Your task to perform on an android device: Go to Google Image 0: 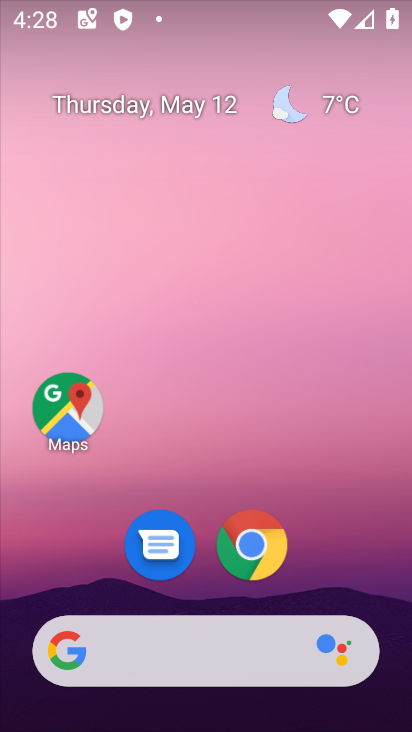
Step 0: drag from (328, 533) to (283, 75)
Your task to perform on an android device: Go to Google Image 1: 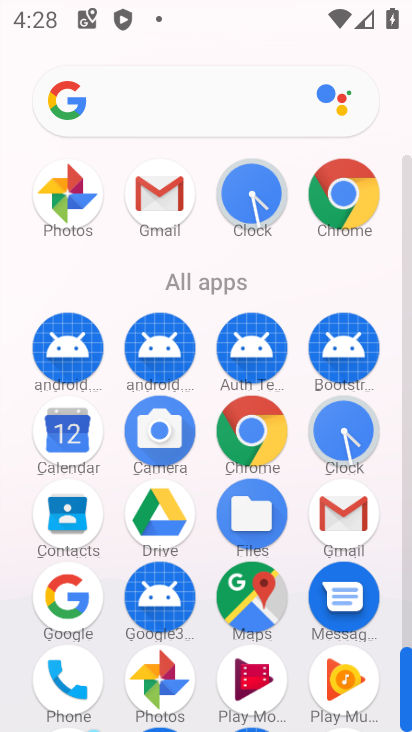
Step 1: click (65, 603)
Your task to perform on an android device: Go to Google Image 2: 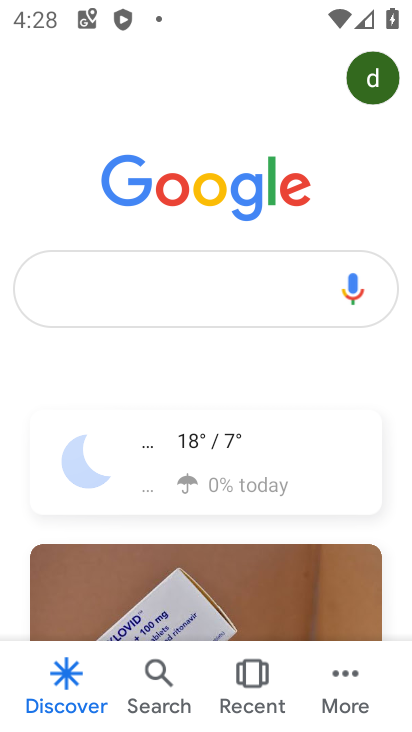
Step 2: task complete